Your task to perform on an android device: turn on airplane mode Image 0: 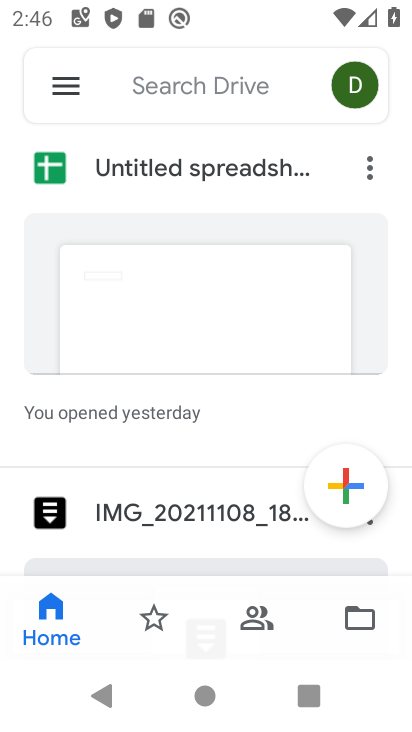
Step 0: press home button
Your task to perform on an android device: turn on airplane mode Image 1: 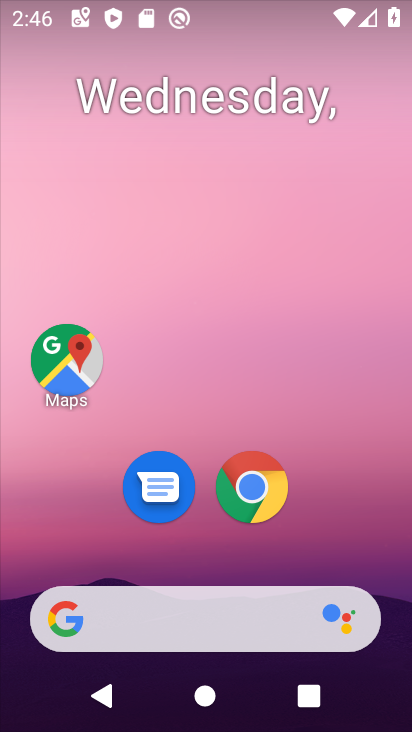
Step 1: drag from (339, 406) to (296, 139)
Your task to perform on an android device: turn on airplane mode Image 2: 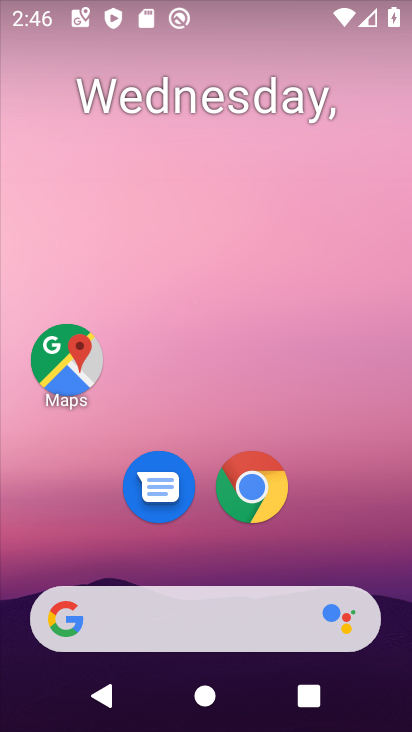
Step 2: drag from (329, 434) to (295, 136)
Your task to perform on an android device: turn on airplane mode Image 3: 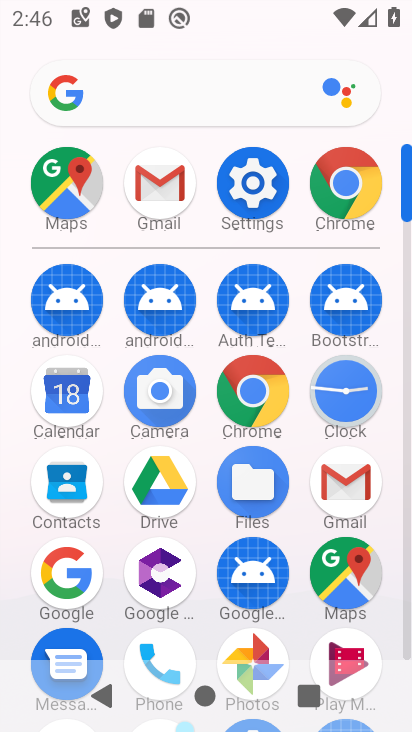
Step 3: click (251, 173)
Your task to perform on an android device: turn on airplane mode Image 4: 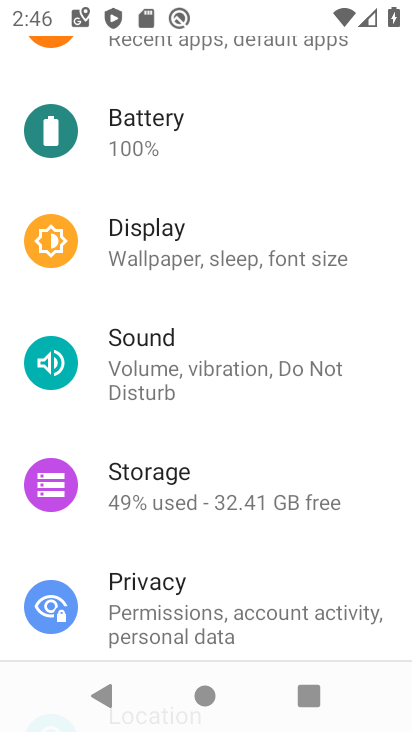
Step 4: drag from (175, 167) to (221, 651)
Your task to perform on an android device: turn on airplane mode Image 5: 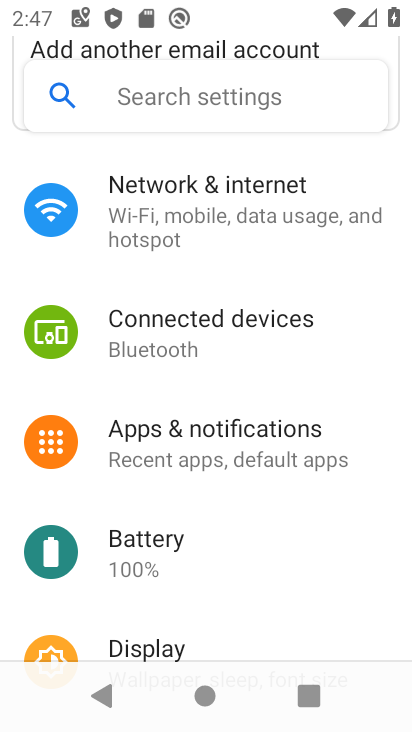
Step 5: click (181, 197)
Your task to perform on an android device: turn on airplane mode Image 6: 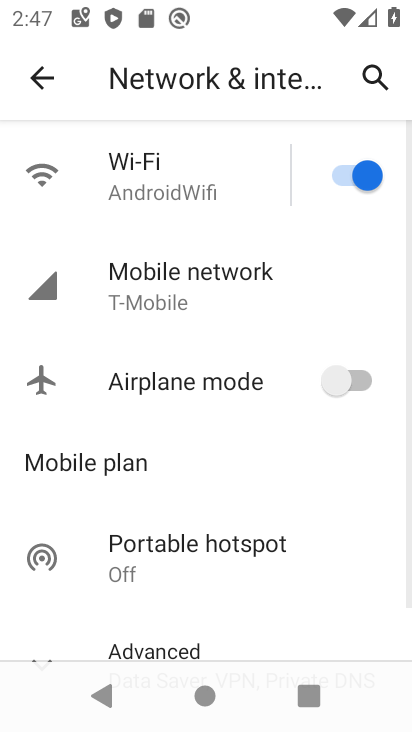
Step 6: click (326, 371)
Your task to perform on an android device: turn on airplane mode Image 7: 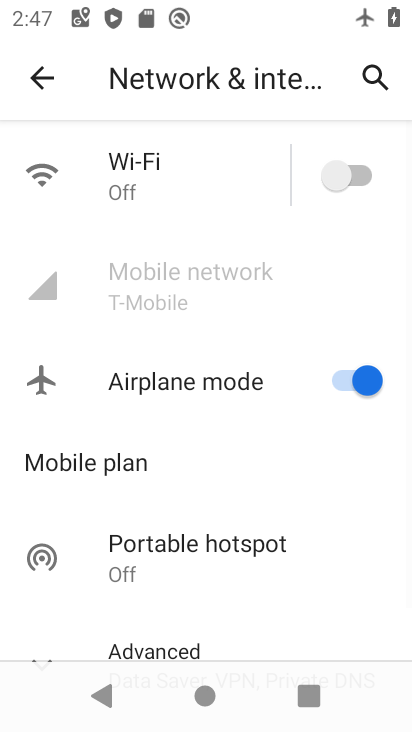
Step 7: task complete